Your task to perform on an android device: turn off javascript in the chrome app Image 0: 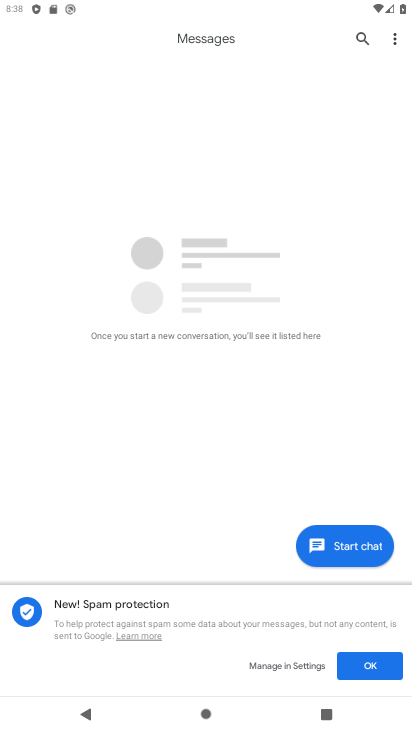
Step 0: press home button
Your task to perform on an android device: turn off javascript in the chrome app Image 1: 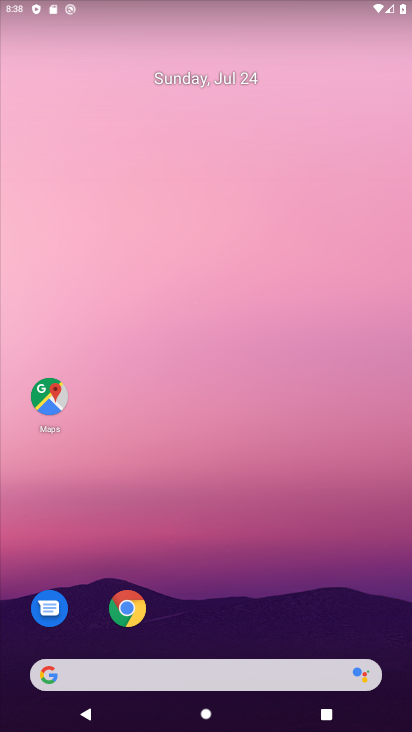
Step 1: click (137, 615)
Your task to perform on an android device: turn off javascript in the chrome app Image 2: 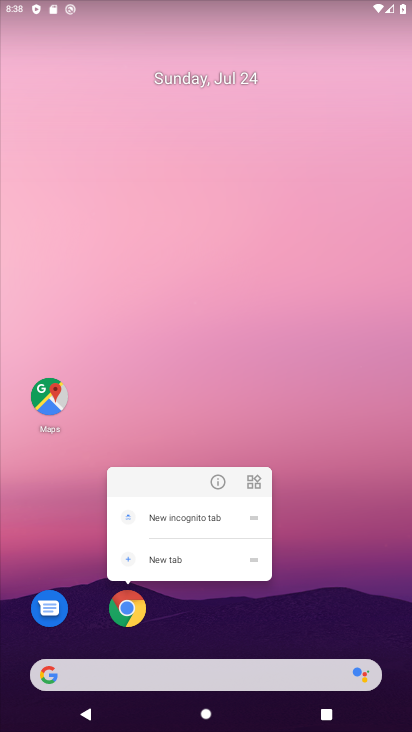
Step 2: click (120, 611)
Your task to perform on an android device: turn off javascript in the chrome app Image 3: 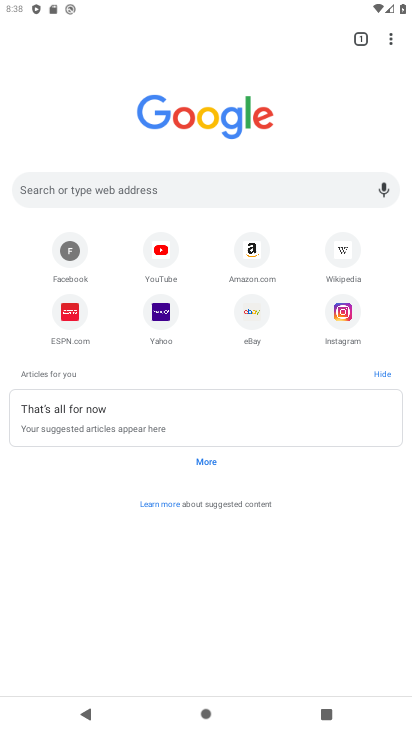
Step 3: click (391, 42)
Your task to perform on an android device: turn off javascript in the chrome app Image 4: 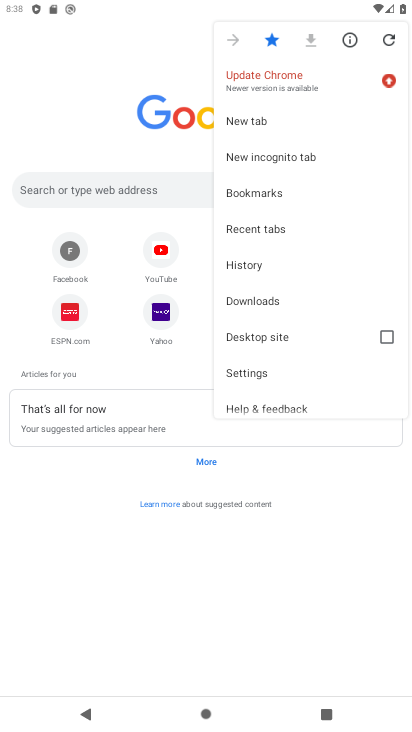
Step 4: click (263, 372)
Your task to perform on an android device: turn off javascript in the chrome app Image 5: 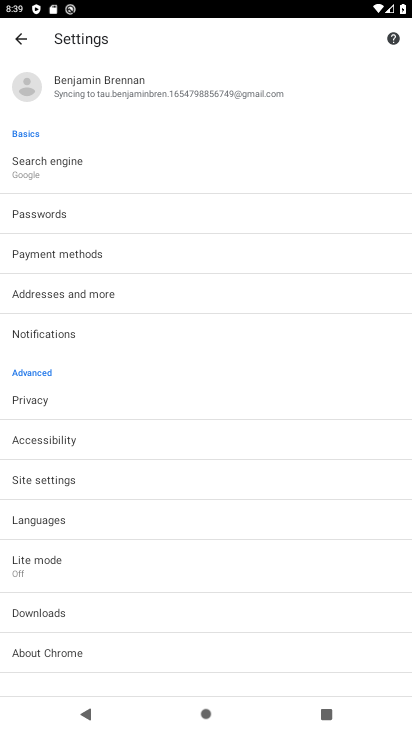
Step 5: click (47, 483)
Your task to perform on an android device: turn off javascript in the chrome app Image 6: 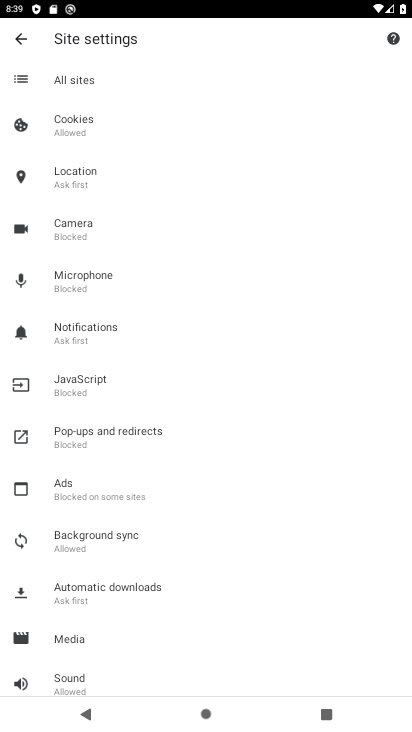
Step 6: click (87, 389)
Your task to perform on an android device: turn off javascript in the chrome app Image 7: 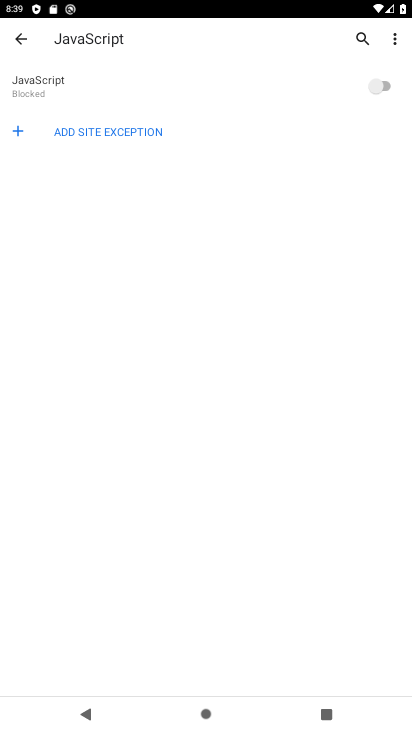
Step 7: task complete